Your task to perform on an android device: set the timer Image 0: 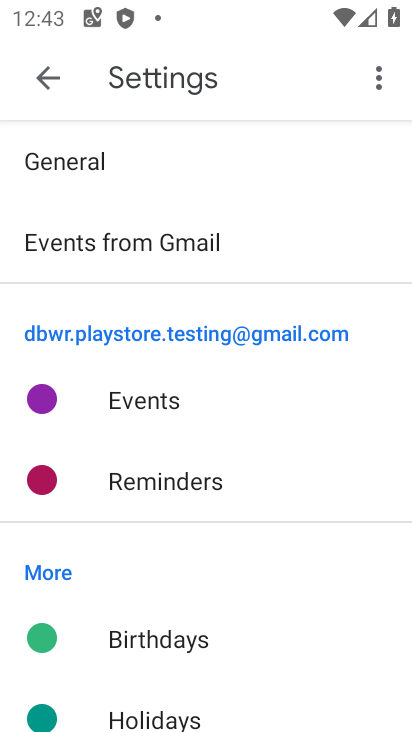
Step 0: press home button
Your task to perform on an android device: set the timer Image 1: 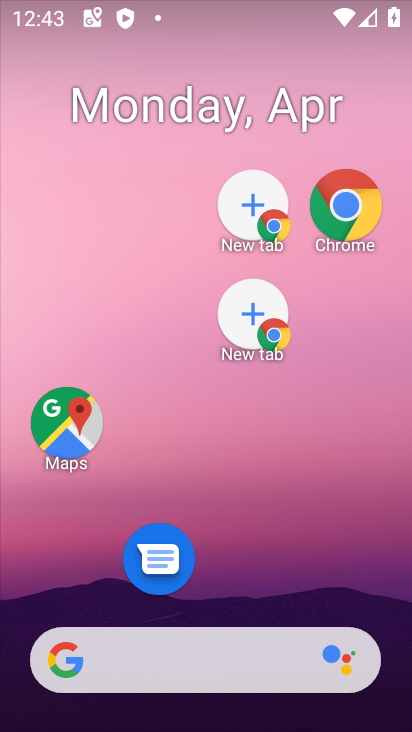
Step 1: drag from (252, 572) to (203, 116)
Your task to perform on an android device: set the timer Image 2: 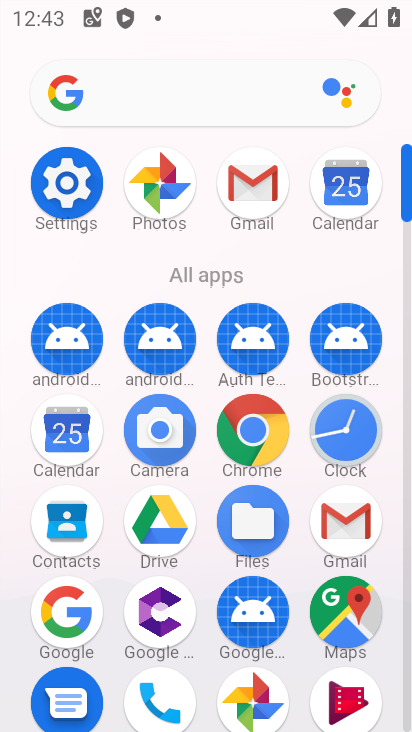
Step 2: click (349, 439)
Your task to perform on an android device: set the timer Image 3: 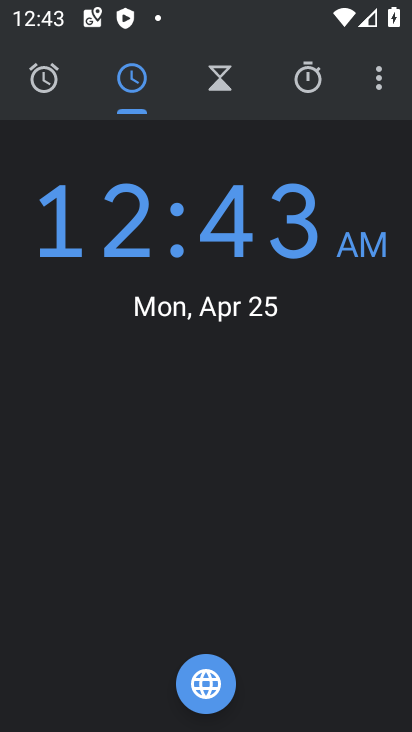
Step 3: click (214, 82)
Your task to perform on an android device: set the timer Image 4: 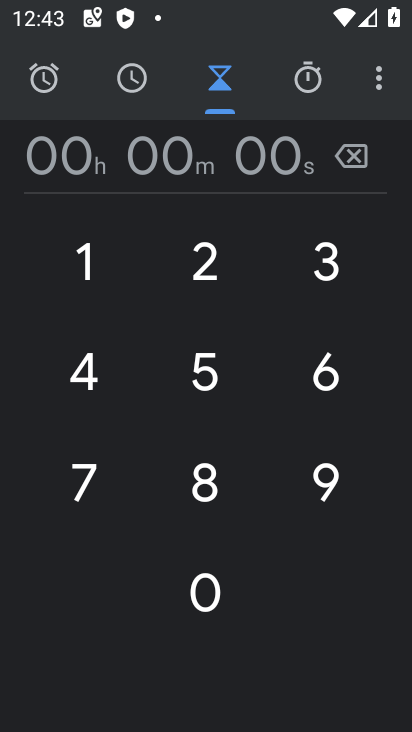
Step 4: click (204, 296)
Your task to perform on an android device: set the timer Image 5: 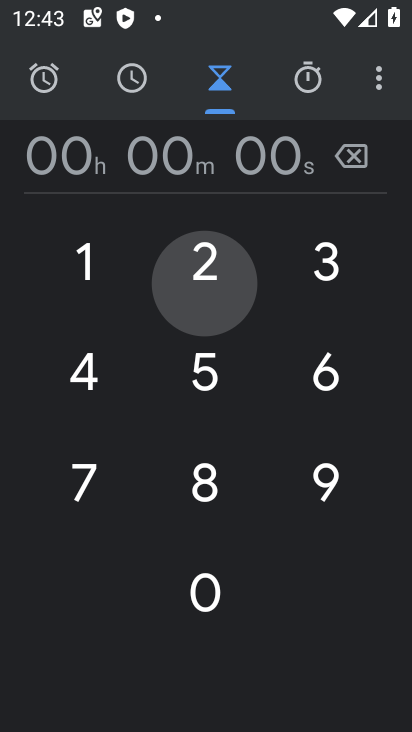
Step 5: click (204, 296)
Your task to perform on an android device: set the timer Image 6: 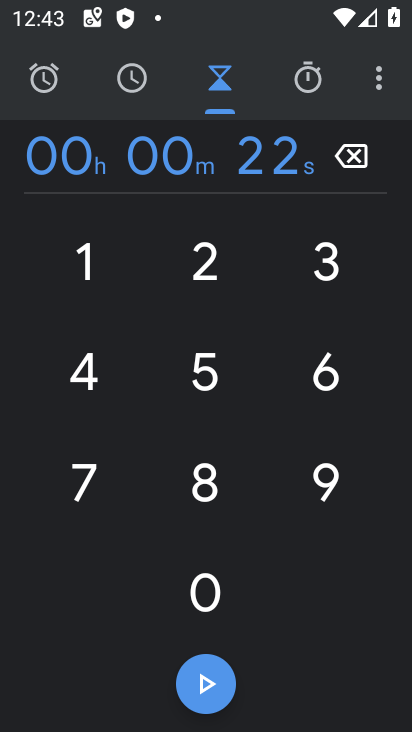
Step 6: click (204, 296)
Your task to perform on an android device: set the timer Image 7: 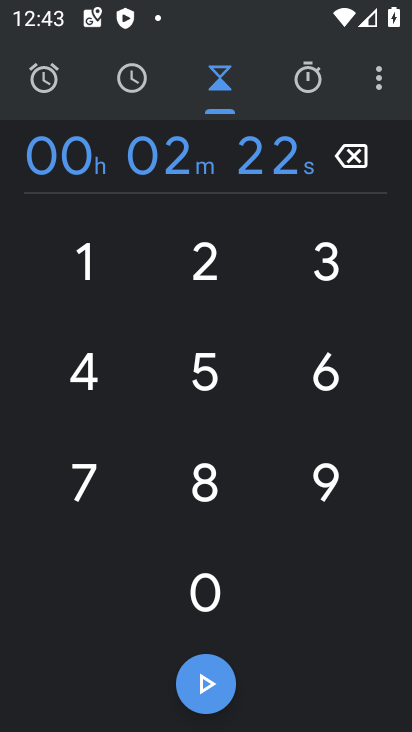
Step 7: click (218, 681)
Your task to perform on an android device: set the timer Image 8: 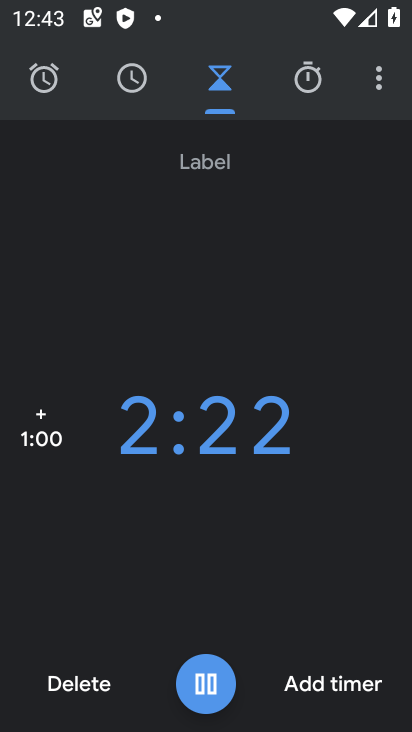
Step 8: task complete